Your task to perform on an android device: Go to Reddit.com Image 0: 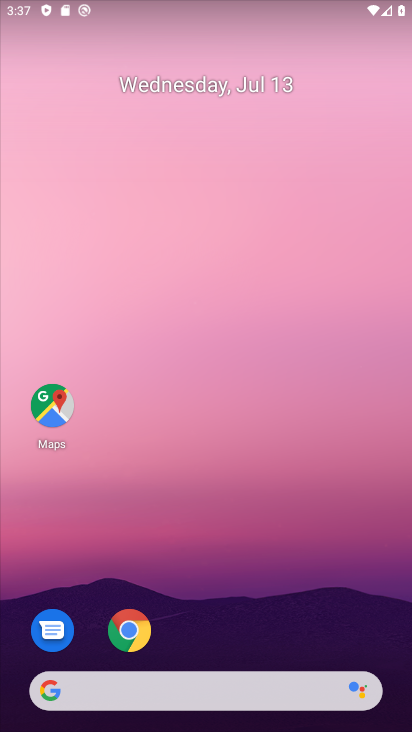
Step 0: click (138, 627)
Your task to perform on an android device: Go to Reddit.com Image 1: 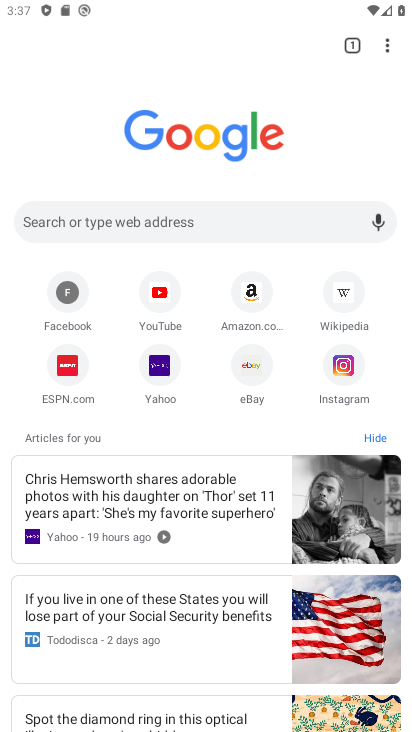
Step 1: click (154, 211)
Your task to perform on an android device: Go to Reddit.com Image 2: 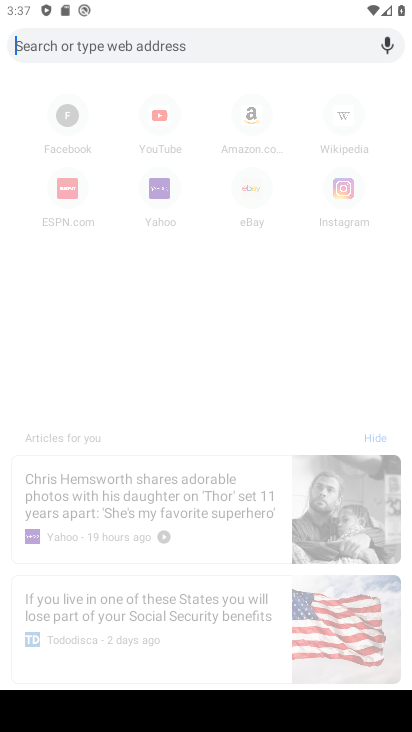
Step 2: type "reddit.com"
Your task to perform on an android device: Go to Reddit.com Image 3: 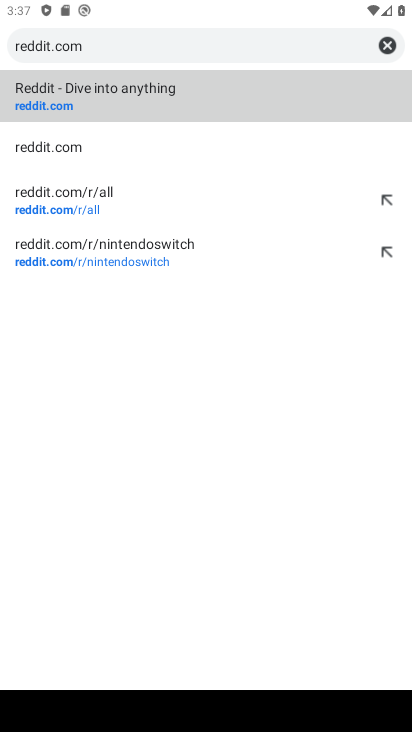
Step 3: click (89, 98)
Your task to perform on an android device: Go to Reddit.com Image 4: 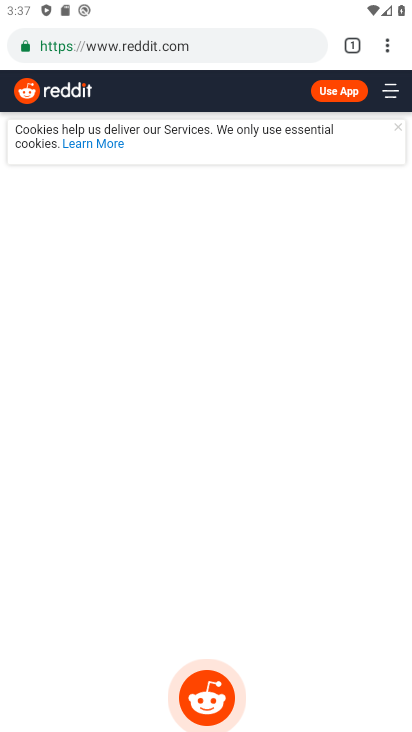
Step 4: task complete